Your task to perform on an android device: Open the Play Movies app and select the watchlist tab. Image 0: 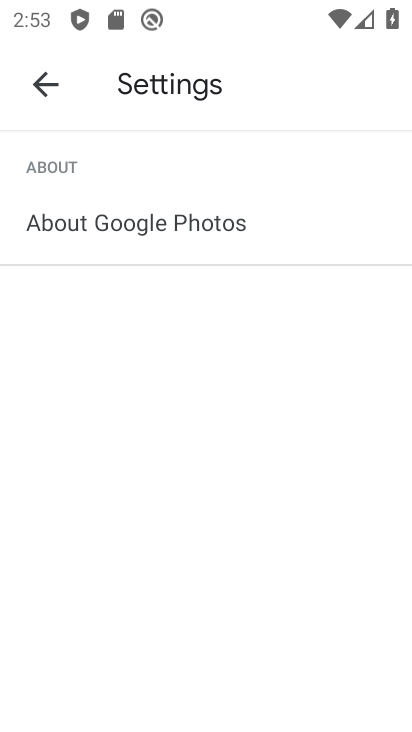
Step 0: press home button
Your task to perform on an android device: Open the Play Movies app and select the watchlist tab. Image 1: 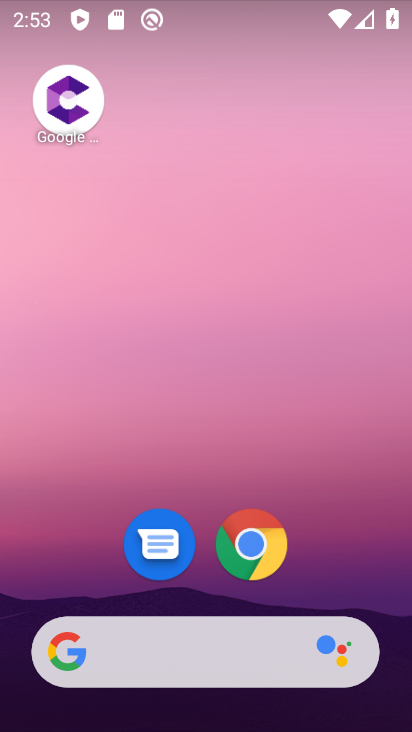
Step 1: drag from (115, 602) to (226, 67)
Your task to perform on an android device: Open the Play Movies app and select the watchlist tab. Image 2: 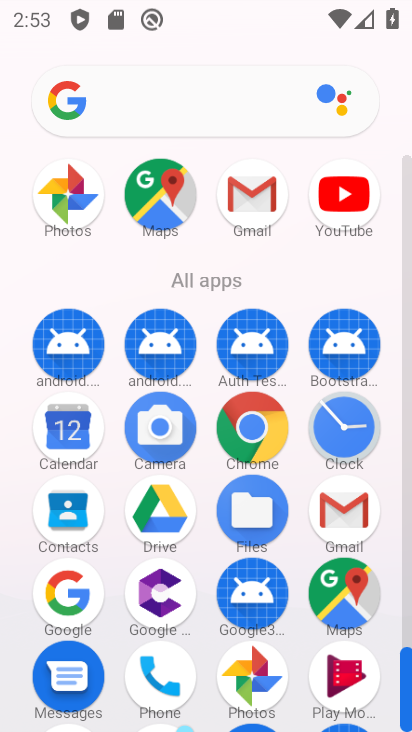
Step 2: click (369, 676)
Your task to perform on an android device: Open the Play Movies app and select the watchlist tab. Image 3: 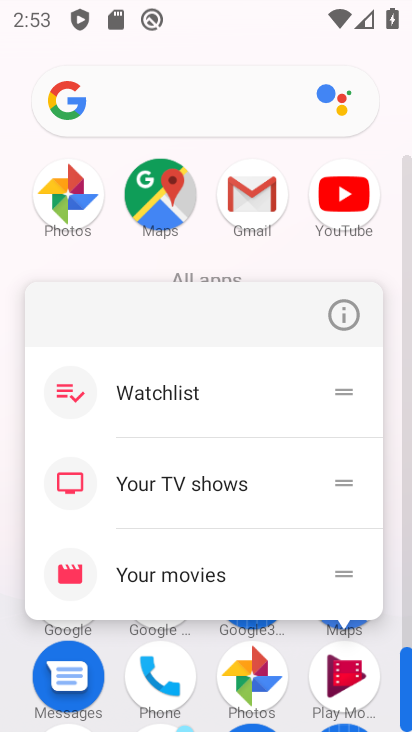
Step 3: click (353, 676)
Your task to perform on an android device: Open the Play Movies app and select the watchlist tab. Image 4: 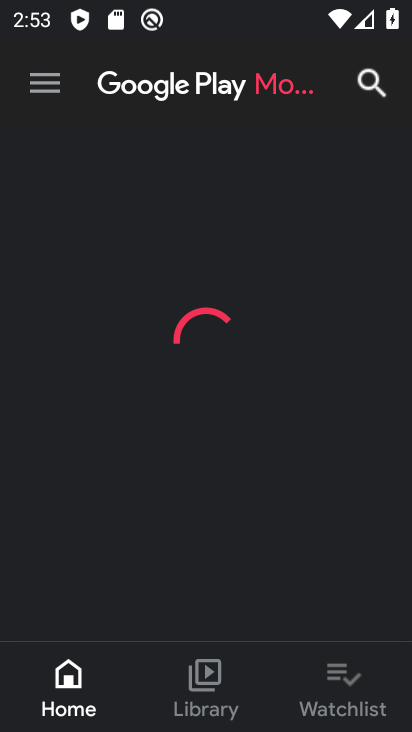
Step 4: click (341, 687)
Your task to perform on an android device: Open the Play Movies app and select the watchlist tab. Image 5: 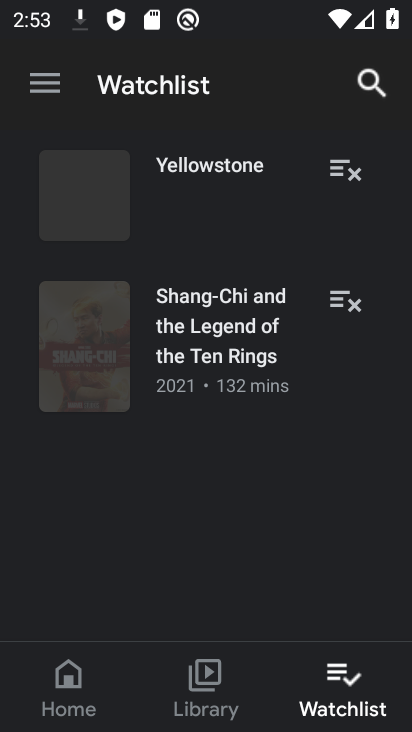
Step 5: click (340, 688)
Your task to perform on an android device: Open the Play Movies app and select the watchlist tab. Image 6: 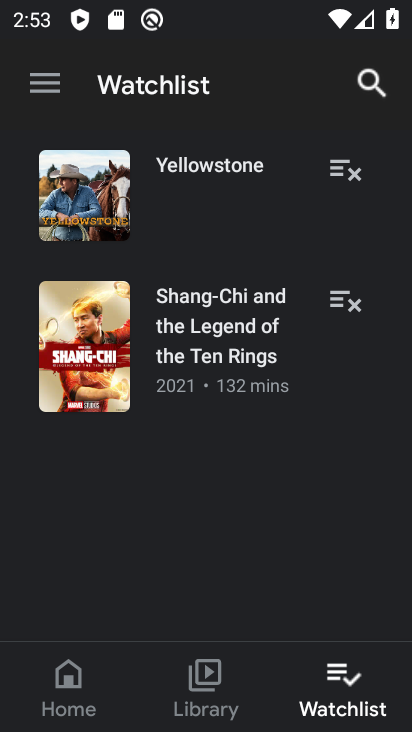
Step 6: click (349, 686)
Your task to perform on an android device: Open the Play Movies app and select the watchlist tab. Image 7: 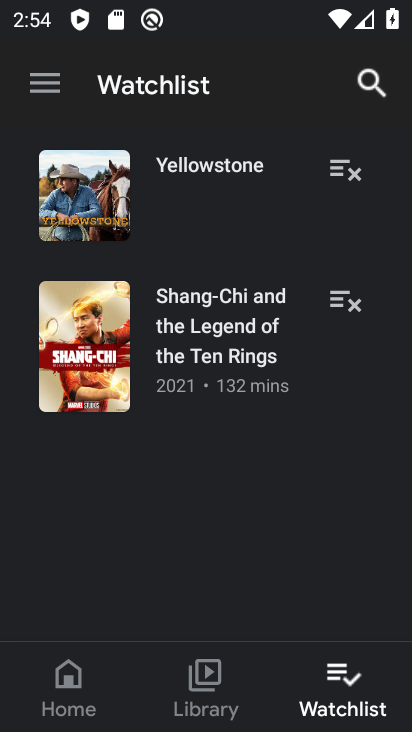
Step 7: task complete